Your task to perform on an android device: turn on improve location accuracy Image 0: 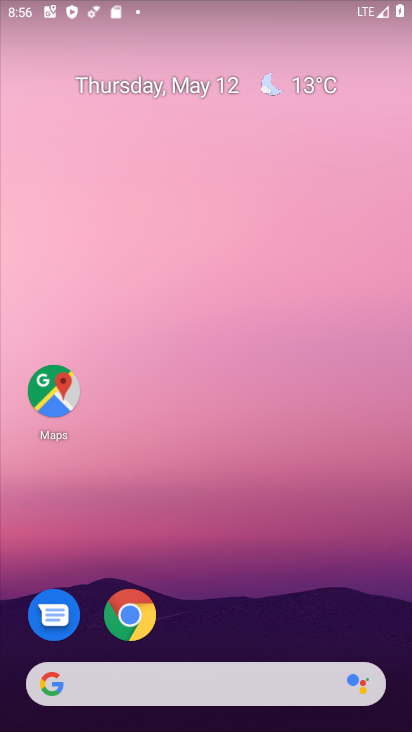
Step 0: drag from (218, 641) to (22, 324)
Your task to perform on an android device: turn on improve location accuracy Image 1: 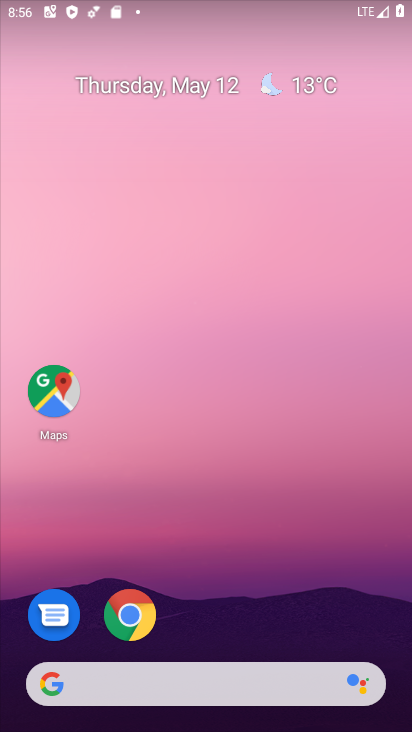
Step 1: drag from (252, 636) to (353, 37)
Your task to perform on an android device: turn on improve location accuracy Image 2: 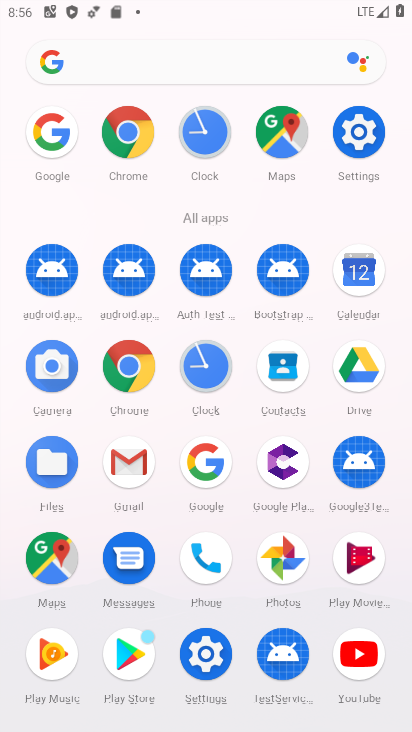
Step 2: click (353, 147)
Your task to perform on an android device: turn on improve location accuracy Image 3: 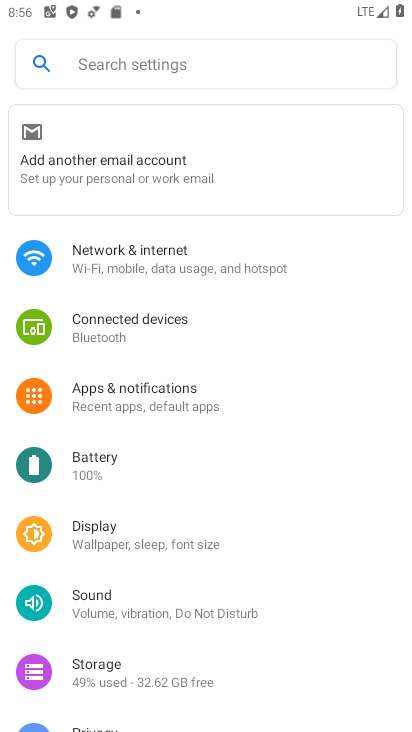
Step 3: drag from (152, 552) to (113, 199)
Your task to perform on an android device: turn on improve location accuracy Image 4: 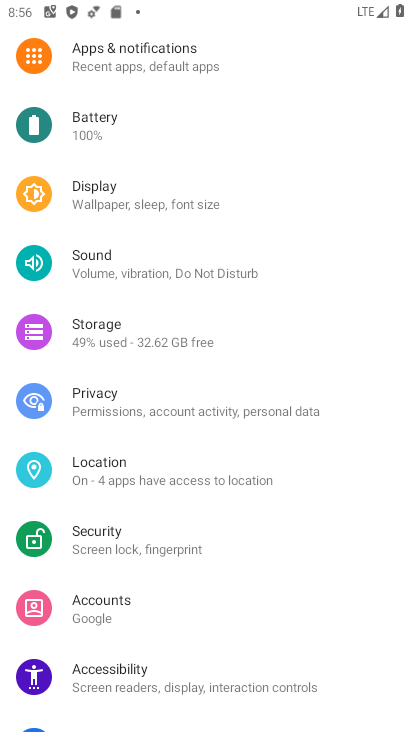
Step 4: click (148, 486)
Your task to perform on an android device: turn on improve location accuracy Image 5: 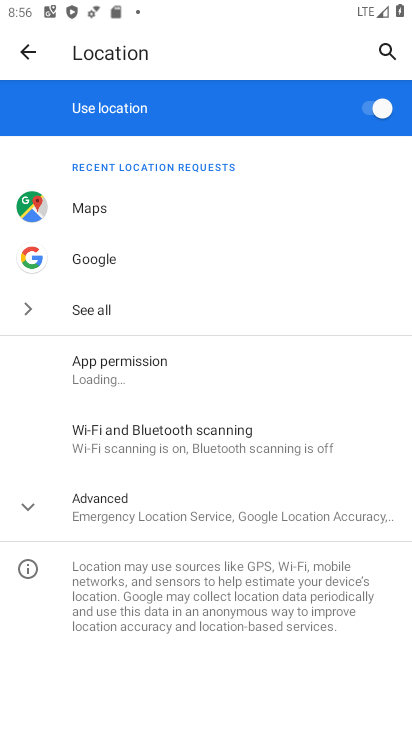
Step 5: click (151, 521)
Your task to perform on an android device: turn on improve location accuracy Image 6: 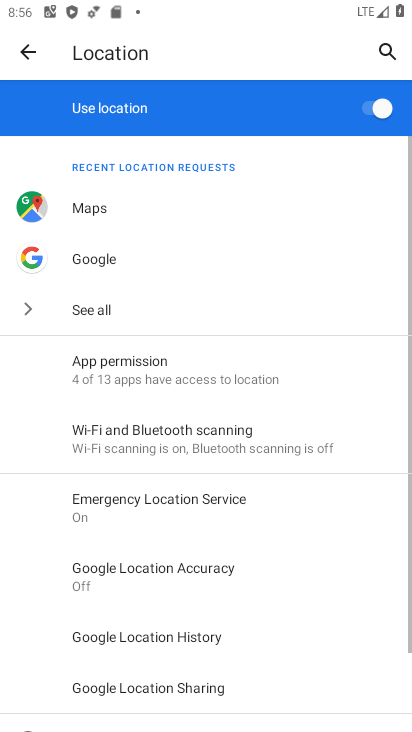
Step 6: click (160, 572)
Your task to perform on an android device: turn on improve location accuracy Image 7: 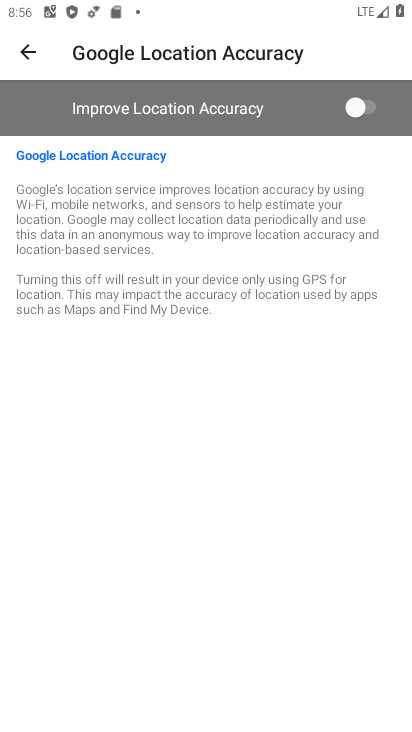
Step 7: click (356, 113)
Your task to perform on an android device: turn on improve location accuracy Image 8: 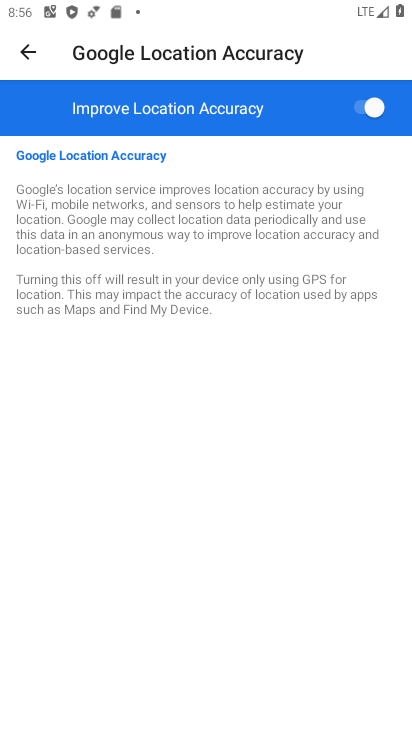
Step 8: task complete